Your task to perform on an android device: Add macbook pro 15 inch to the cart on amazon.com Image 0: 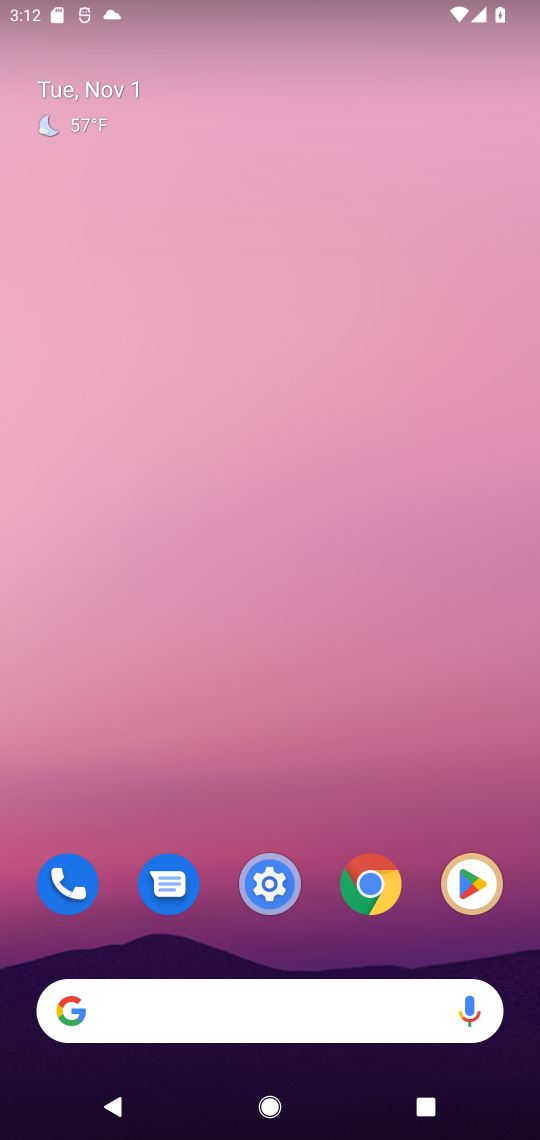
Step 0: press home button
Your task to perform on an android device: Add macbook pro 15 inch to the cart on amazon.com Image 1: 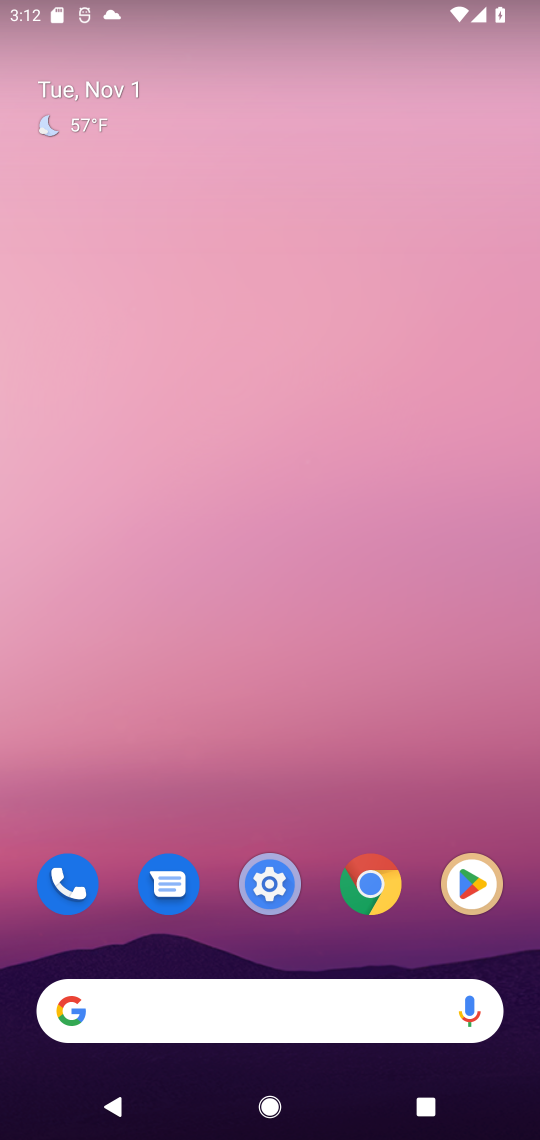
Step 1: click (110, 1007)
Your task to perform on an android device: Add macbook pro 15 inch to the cart on amazon.com Image 2: 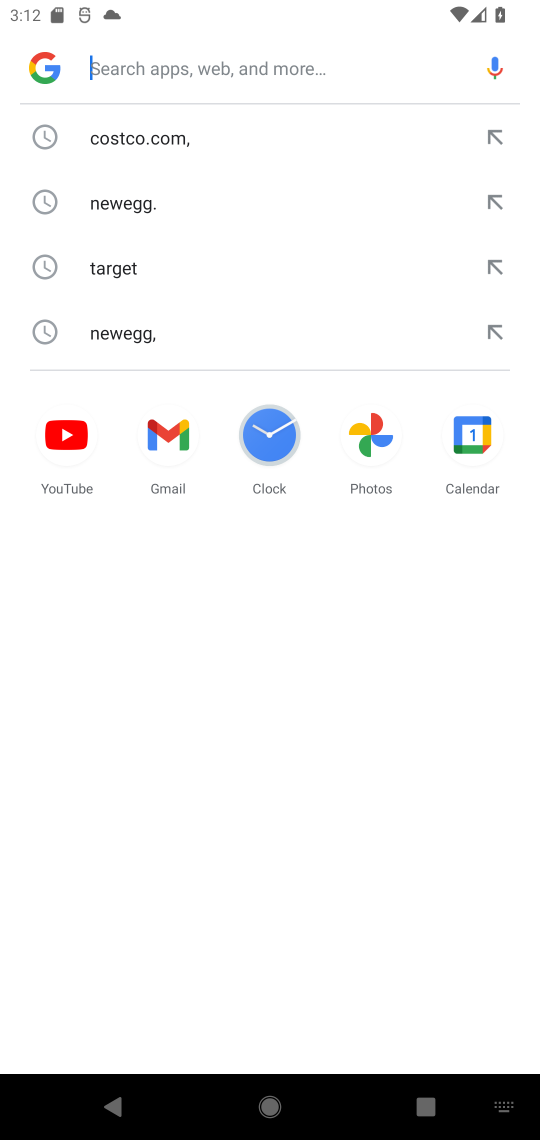
Step 2: type "amazon.com"
Your task to perform on an android device: Add macbook pro 15 inch to the cart on amazon.com Image 3: 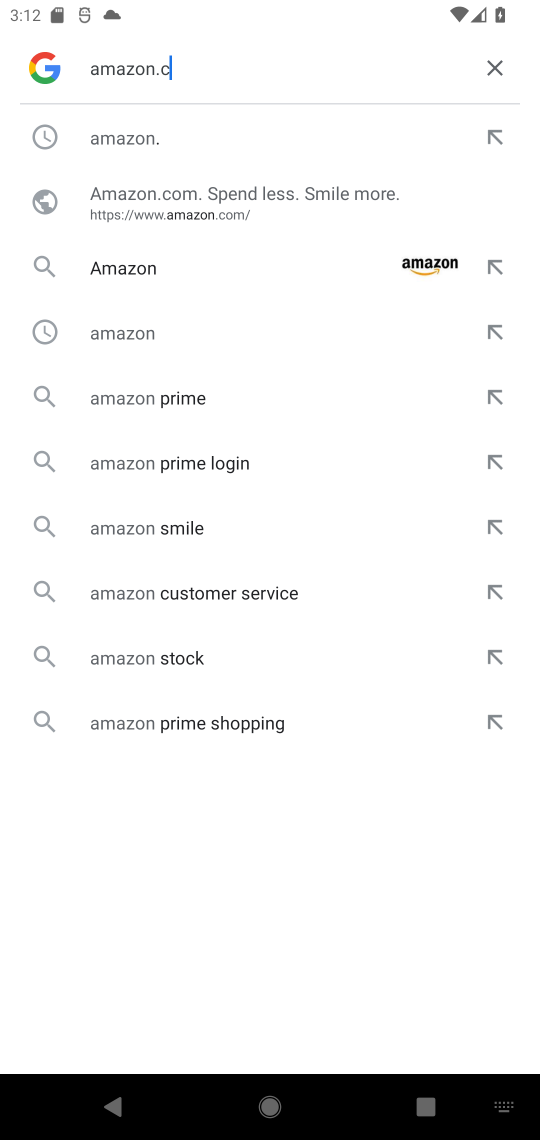
Step 3: press enter
Your task to perform on an android device: Add macbook pro 15 inch to the cart on amazon.com Image 4: 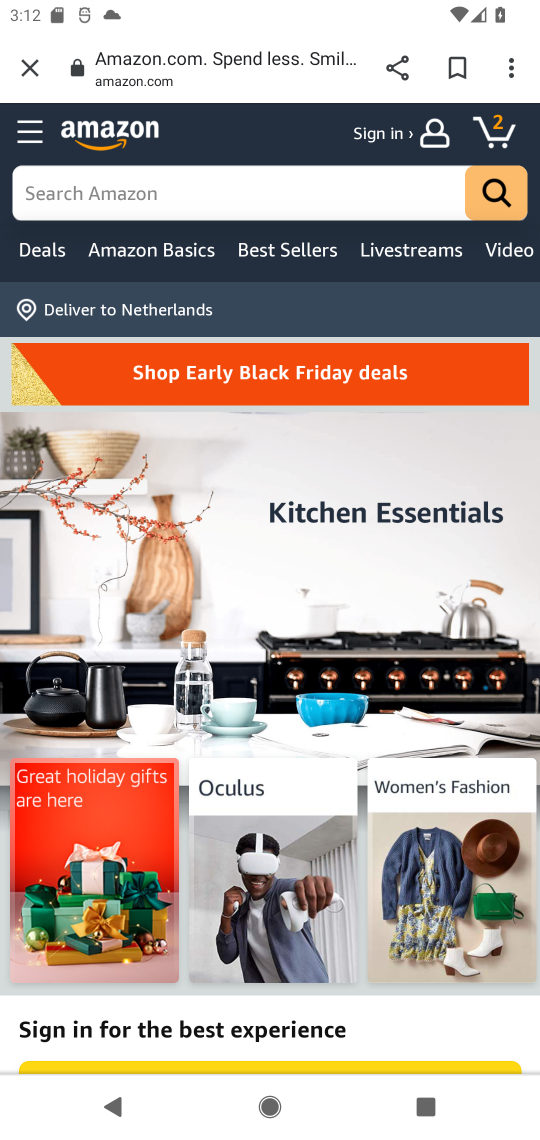
Step 4: click (68, 195)
Your task to perform on an android device: Add macbook pro 15 inch to the cart on amazon.com Image 5: 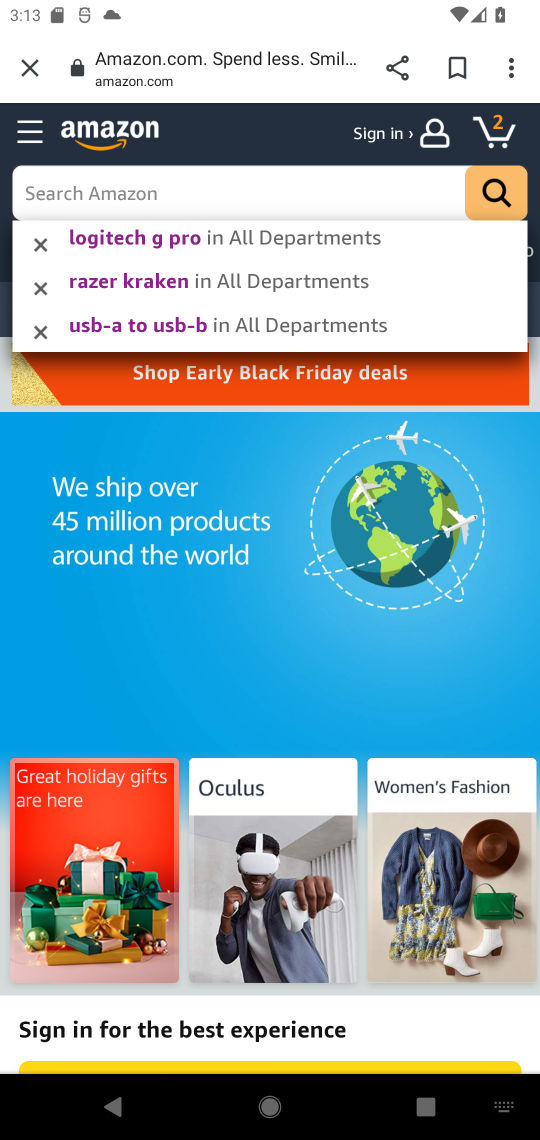
Step 5: type "macbook pro 15 inch "
Your task to perform on an android device: Add macbook pro 15 inch to the cart on amazon.com Image 6: 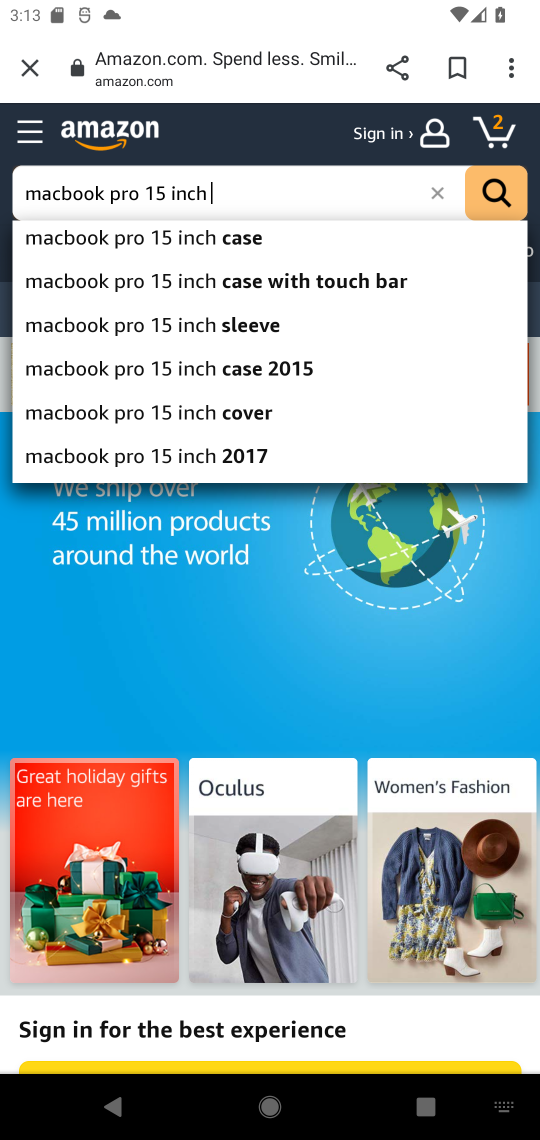
Step 6: click (494, 193)
Your task to perform on an android device: Add macbook pro 15 inch to the cart on amazon.com Image 7: 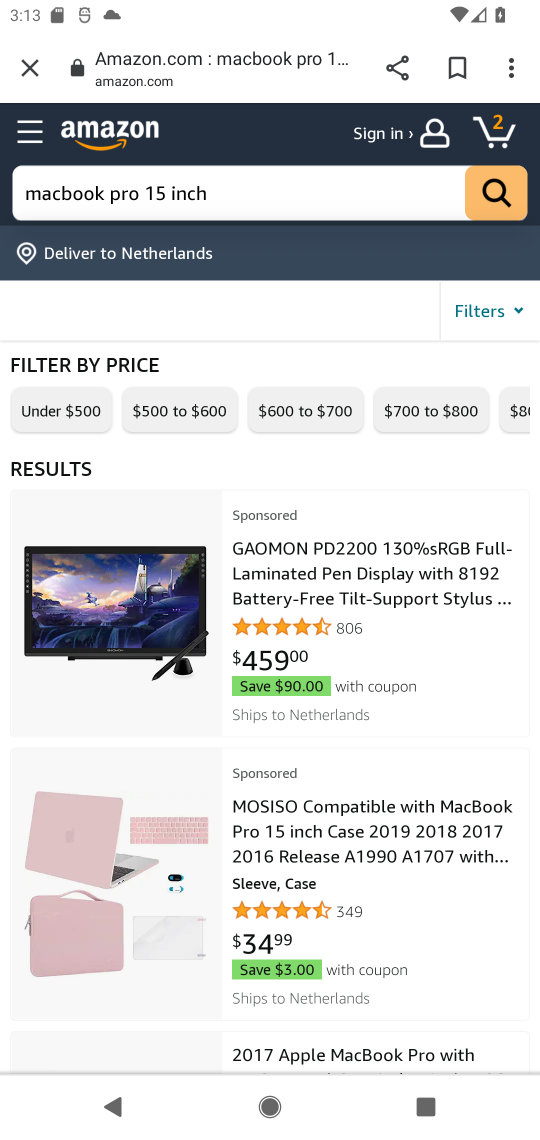
Step 7: drag from (350, 895) to (387, 596)
Your task to perform on an android device: Add macbook pro 15 inch to the cart on amazon.com Image 8: 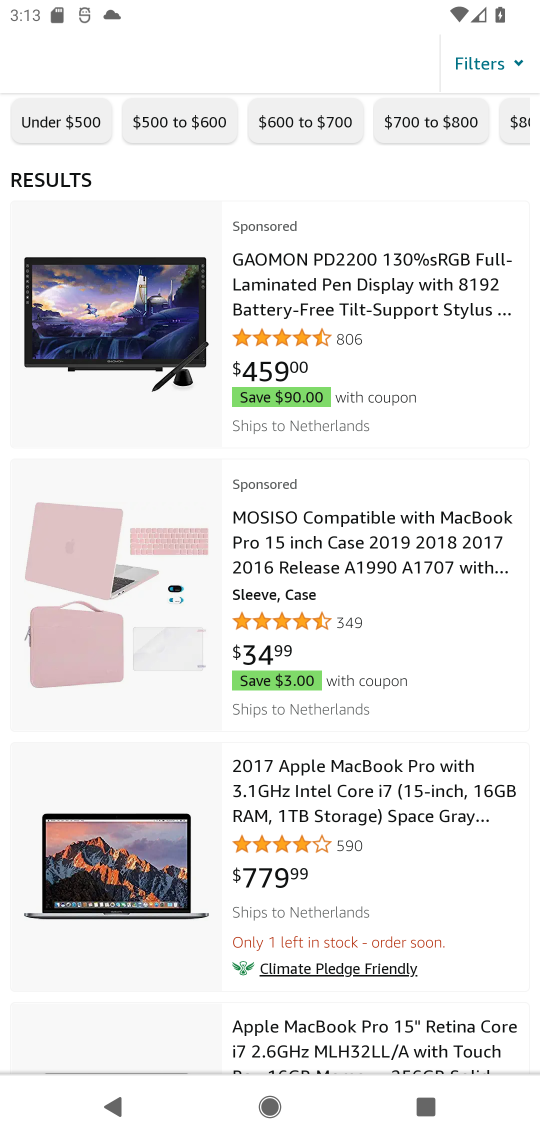
Step 8: drag from (331, 888) to (383, 624)
Your task to perform on an android device: Add macbook pro 15 inch to the cart on amazon.com Image 9: 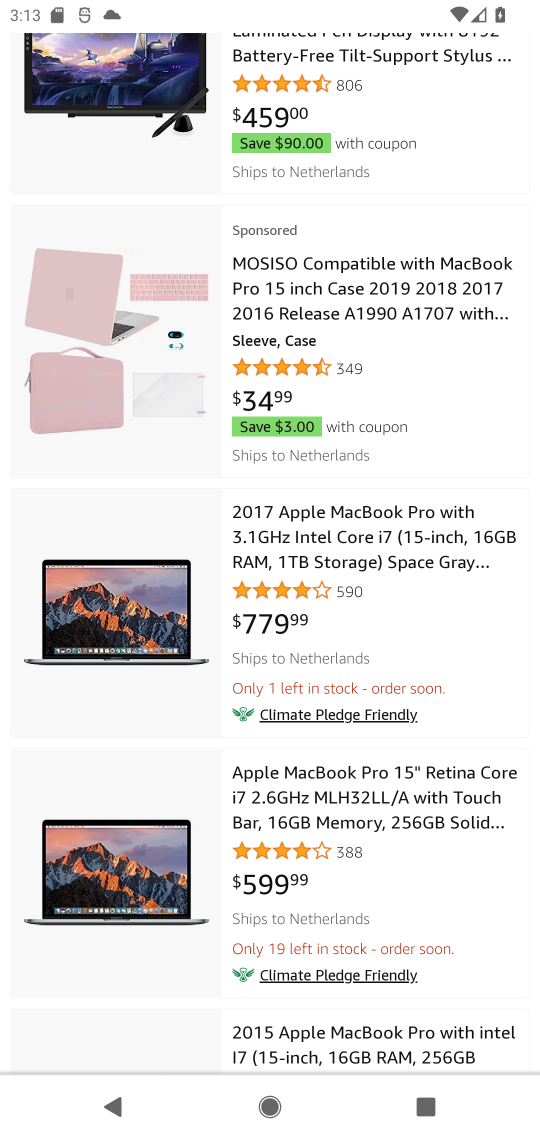
Step 9: click (328, 823)
Your task to perform on an android device: Add macbook pro 15 inch to the cart on amazon.com Image 10: 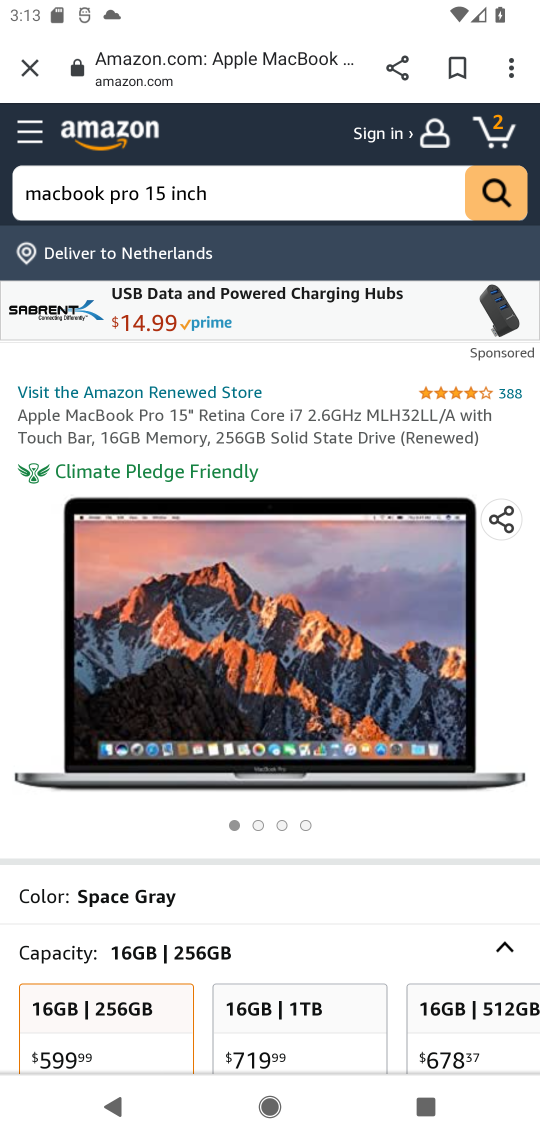
Step 10: drag from (307, 902) to (360, 529)
Your task to perform on an android device: Add macbook pro 15 inch to the cart on amazon.com Image 11: 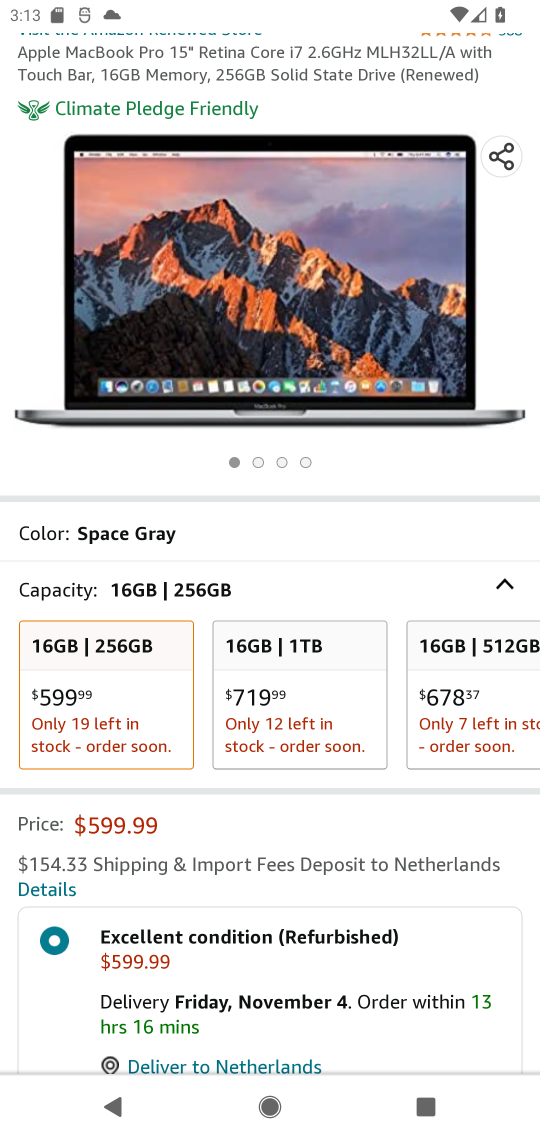
Step 11: drag from (245, 861) to (270, 371)
Your task to perform on an android device: Add macbook pro 15 inch to the cart on amazon.com Image 12: 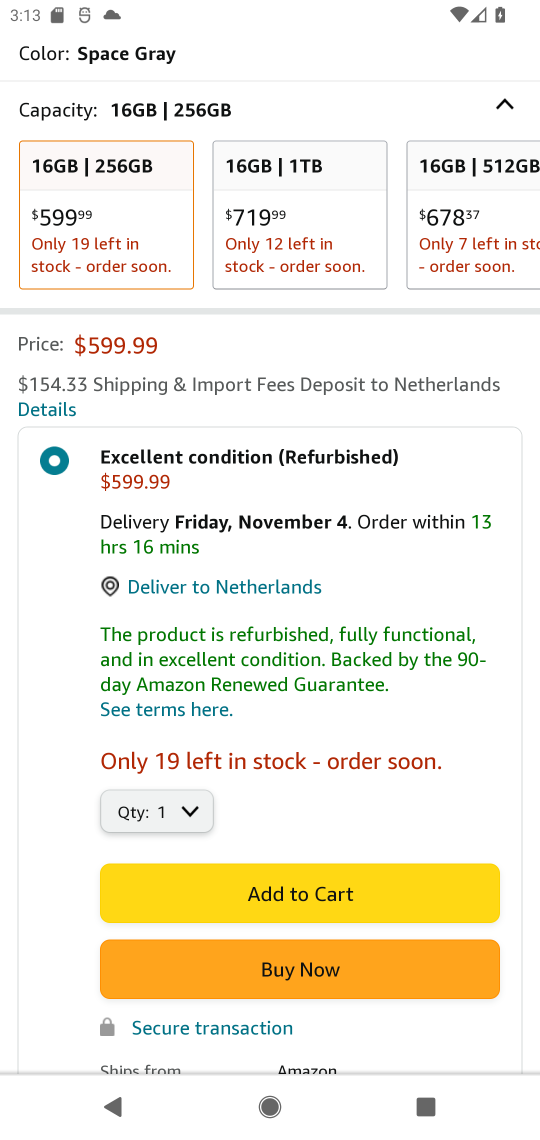
Step 12: click (352, 896)
Your task to perform on an android device: Add macbook pro 15 inch to the cart on amazon.com Image 13: 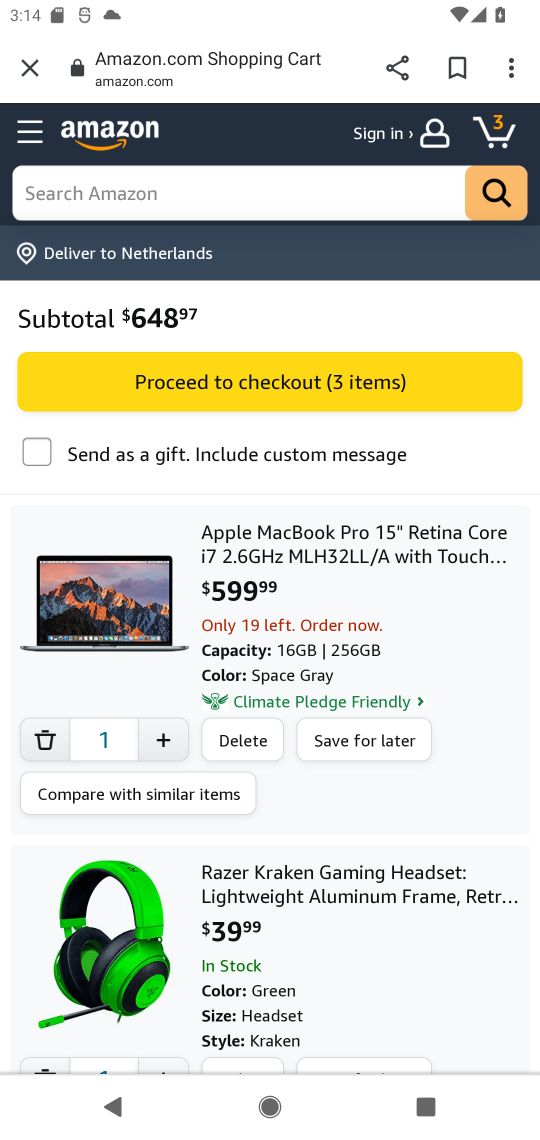
Step 13: task complete